Your task to perform on an android device: delete the emails in spam in the gmail app Image 0: 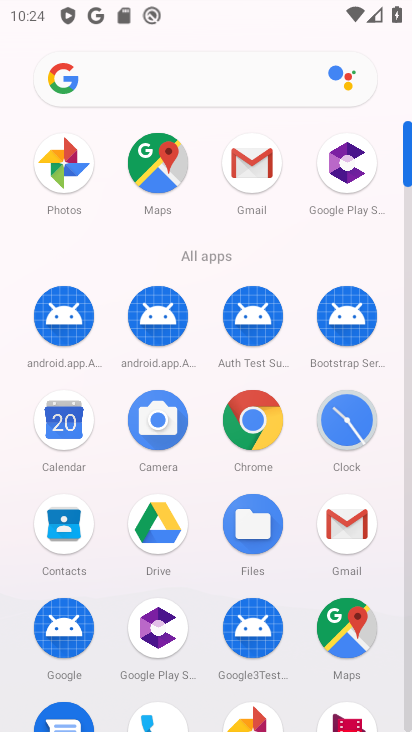
Step 0: press home button
Your task to perform on an android device: delete the emails in spam in the gmail app Image 1: 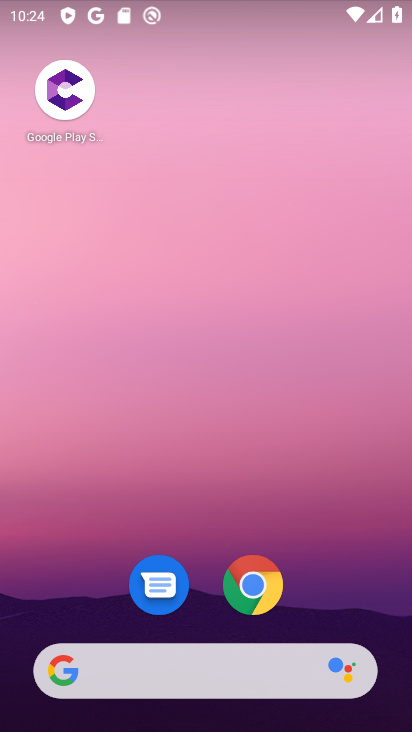
Step 1: drag from (288, 303) to (300, 182)
Your task to perform on an android device: delete the emails in spam in the gmail app Image 2: 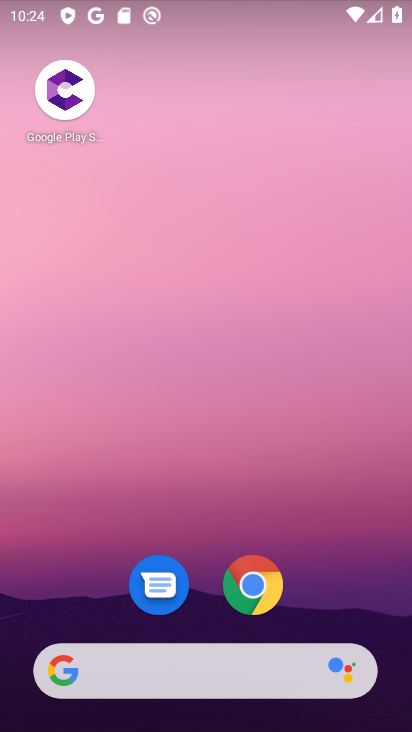
Step 2: drag from (216, 666) to (334, 135)
Your task to perform on an android device: delete the emails in spam in the gmail app Image 3: 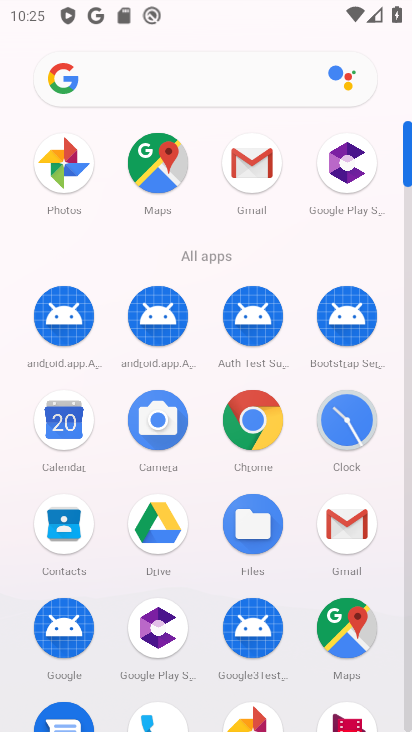
Step 3: click (252, 176)
Your task to perform on an android device: delete the emails in spam in the gmail app Image 4: 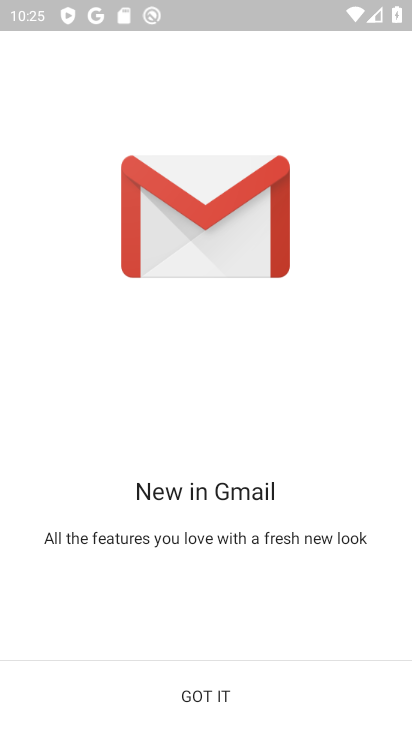
Step 4: click (200, 682)
Your task to perform on an android device: delete the emails in spam in the gmail app Image 5: 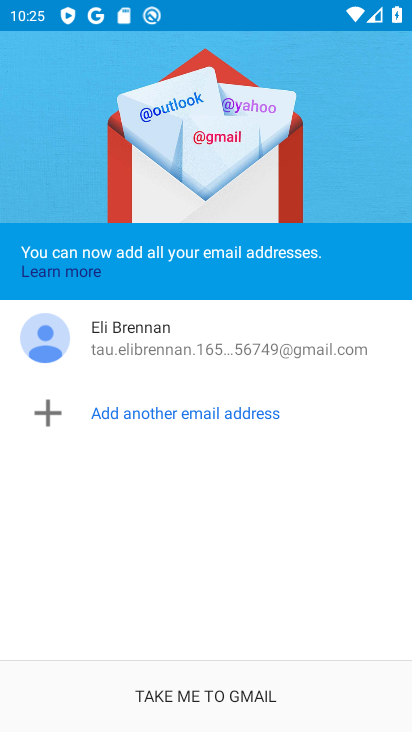
Step 5: click (200, 685)
Your task to perform on an android device: delete the emails in spam in the gmail app Image 6: 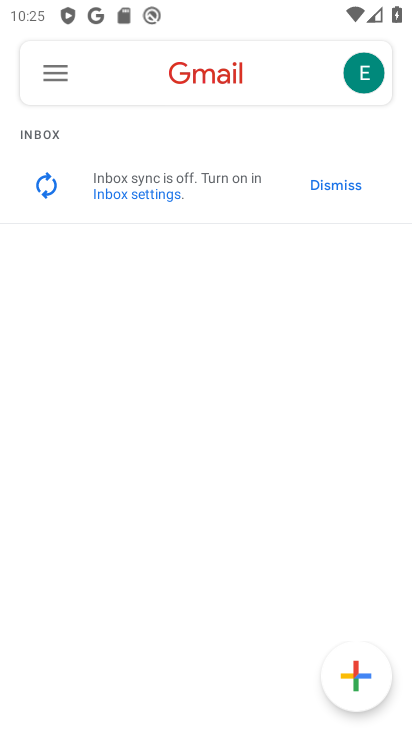
Step 6: click (54, 71)
Your task to perform on an android device: delete the emails in spam in the gmail app Image 7: 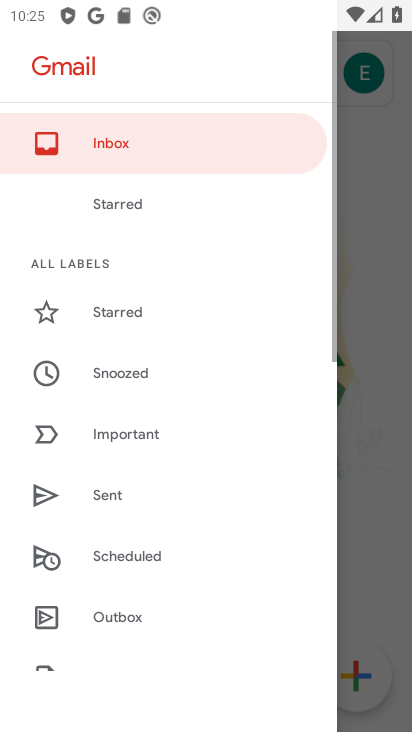
Step 7: drag from (168, 582) to (178, 219)
Your task to perform on an android device: delete the emails in spam in the gmail app Image 8: 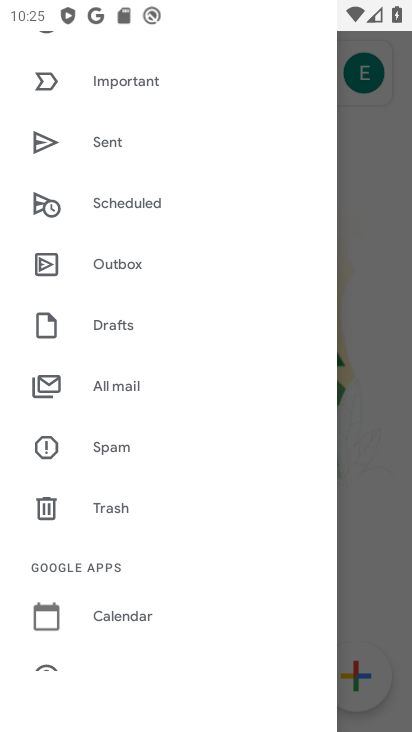
Step 8: click (121, 449)
Your task to perform on an android device: delete the emails in spam in the gmail app Image 9: 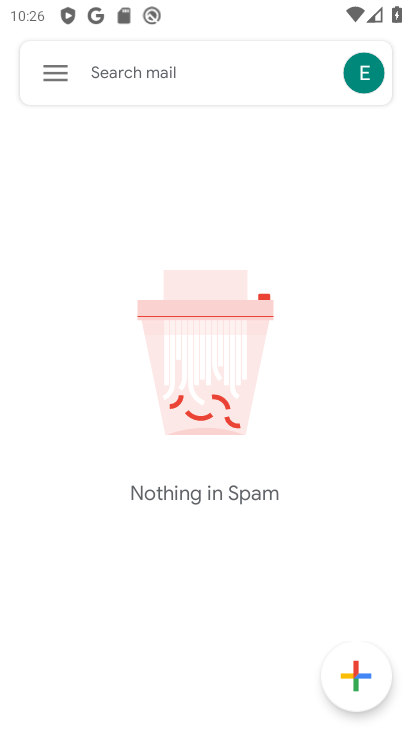
Step 9: task complete